Your task to perform on an android device: Search for flights from Sydney to Buenos aires Image 0: 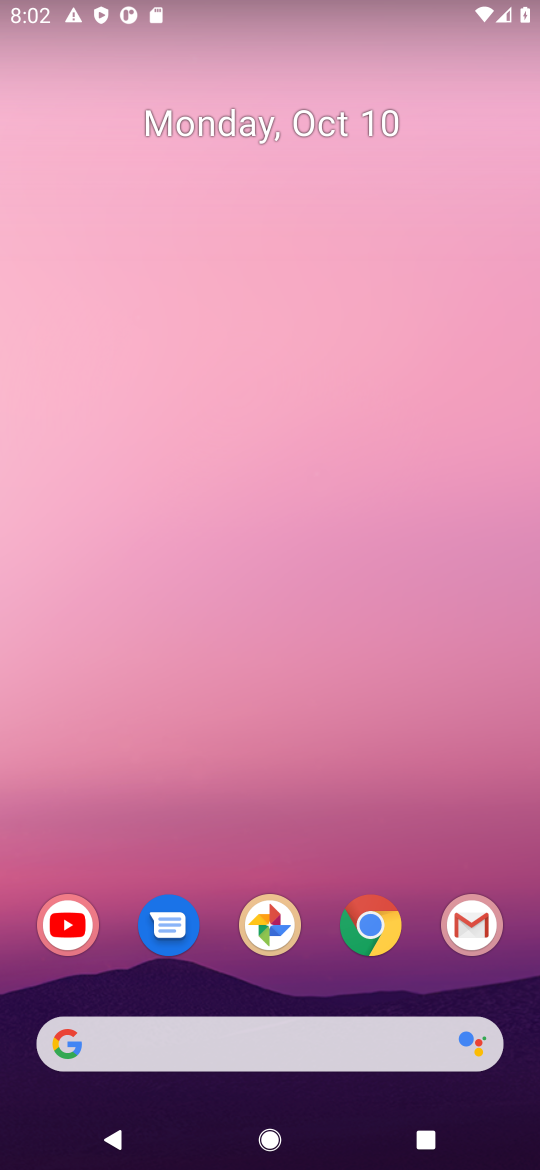
Step 0: drag from (316, 935) to (327, 210)
Your task to perform on an android device: Search for flights from Sydney to Buenos aires Image 1: 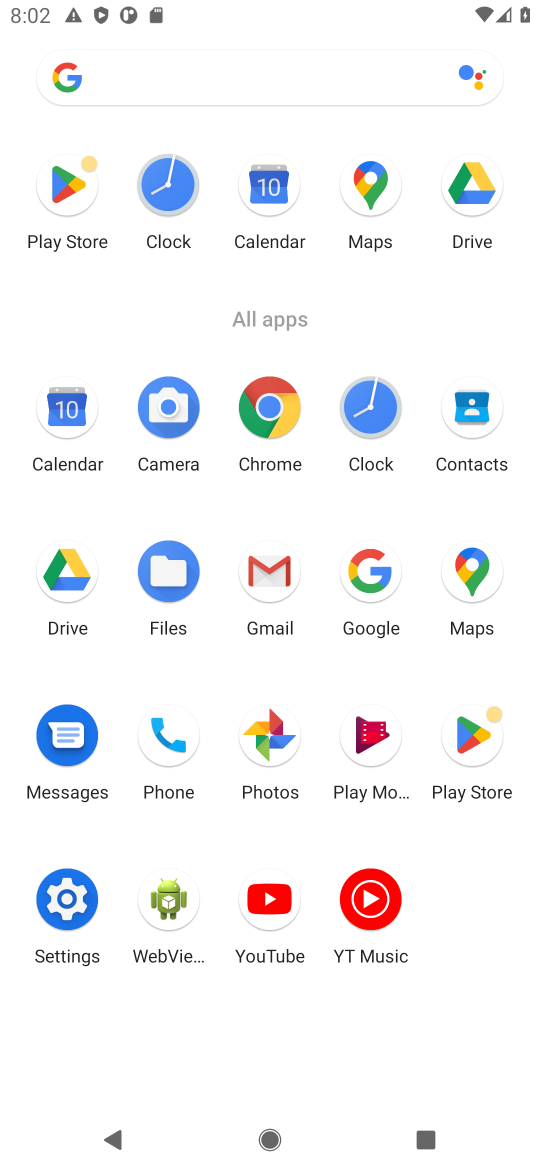
Step 1: click (274, 403)
Your task to perform on an android device: Search for flights from Sydney to Buenos aires Image 2: 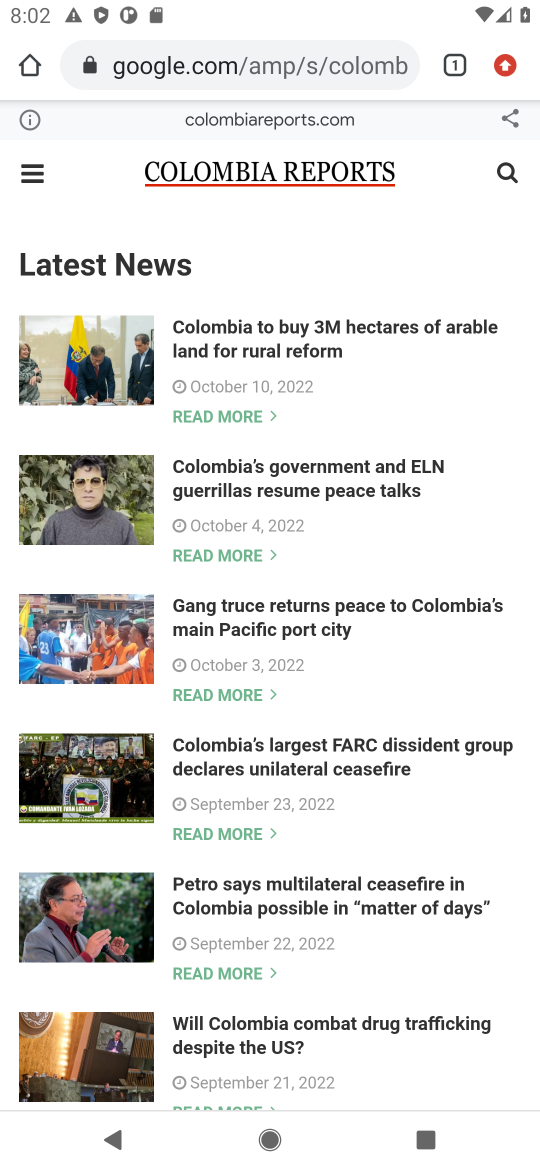
Step 2: click (349, 40)
Your task to perform on an android device: Search for flights from Sydney to Buenos aires Image 3: 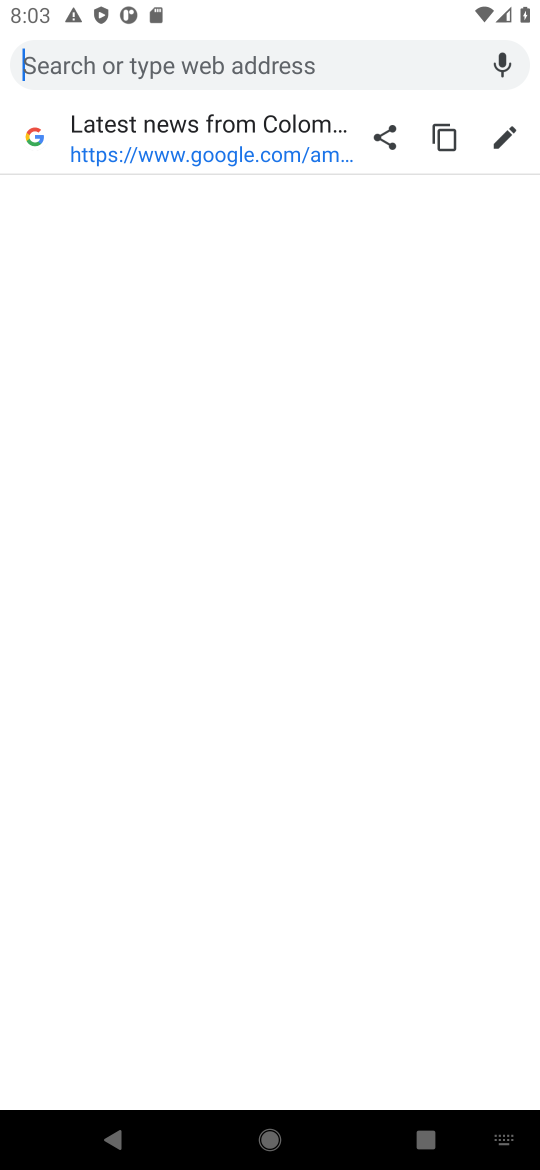
Step 3: type "flights from Sydney to Buenos aires"
Your task to perform on an android device: Search for flights from Sydney to Buenos aires Image 4: 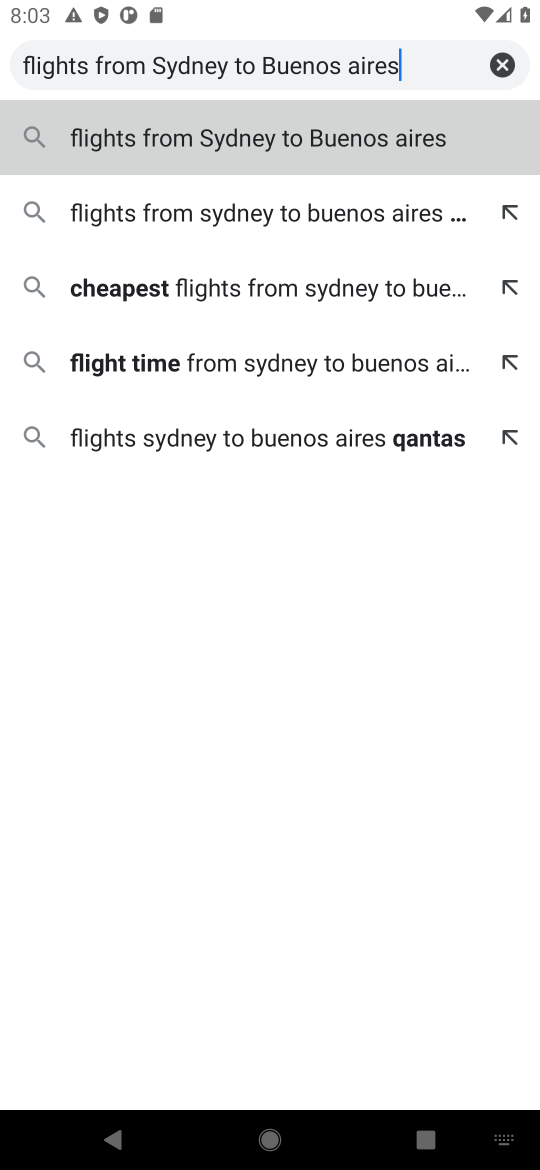
Step 4: press enter
Your task to perform on an android device: Search for flights from Sydney to Buenos aires Image 5: 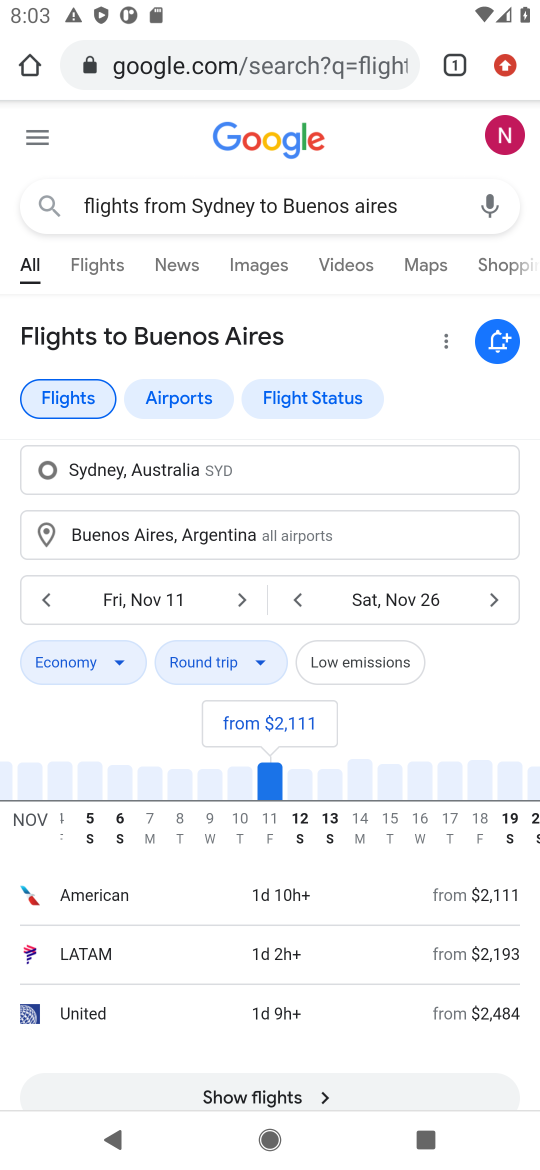
Step 5: drag from (276, 918) to (406, 373)
Your task to perform on an android device: Search for flights from Sydney to Buenos aires Image 6: 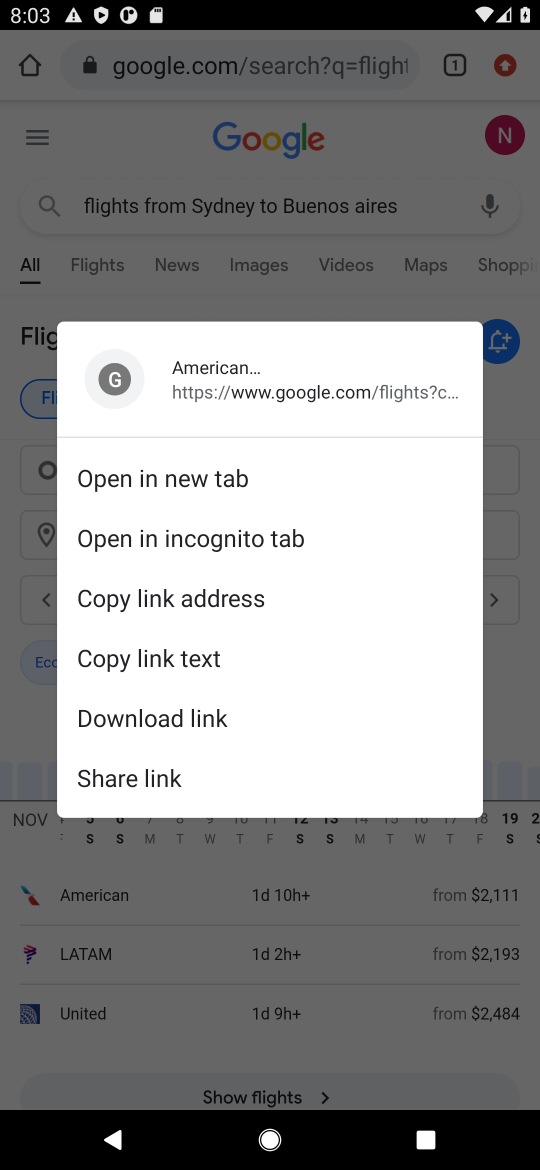
Step 6: click (325, 228)
Your task to perform on an android device: Search for flights from Sydney to Buenos aires Image 7: 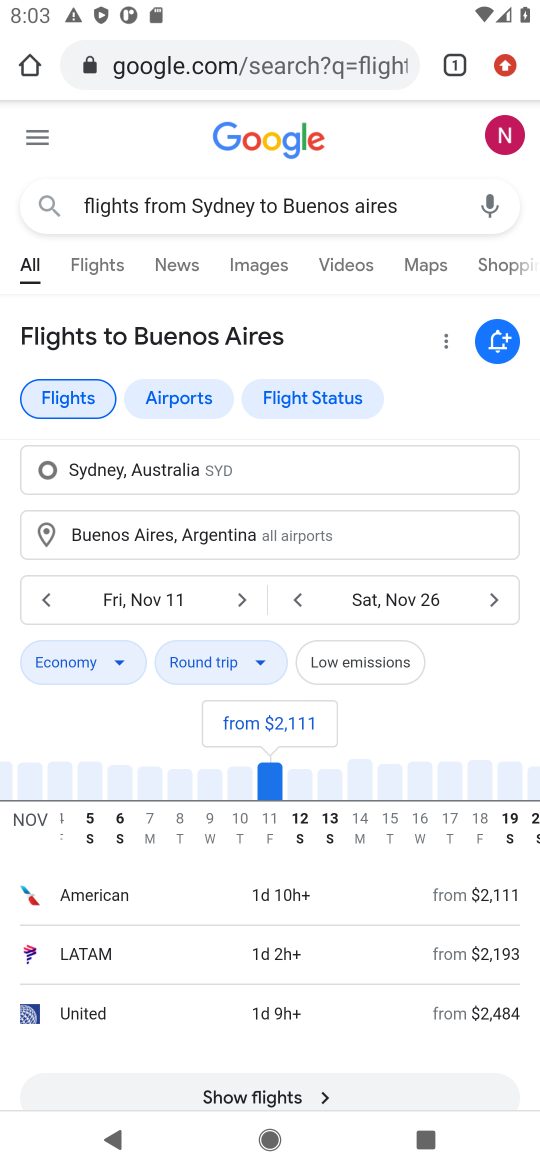
Step 7: task complete